Your task to perform on an android device: Open location settings Image 0: 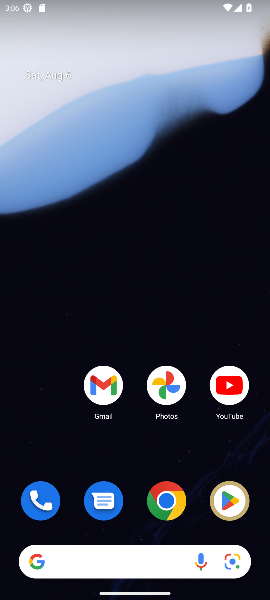
Step 0: drag from (20, 505) to (63, 444)
Your task to perform on an android device: Open location settings Image 1: 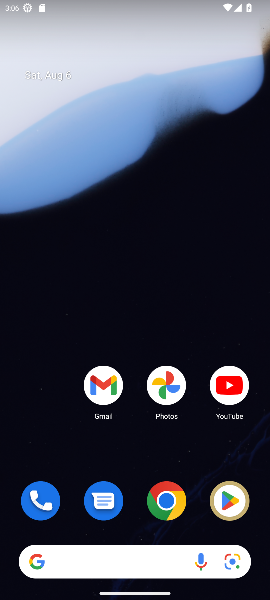
Step 1: drag from (21, 532) to (209, 92)
Your task to perform on an android device: Open location settings Image 2: 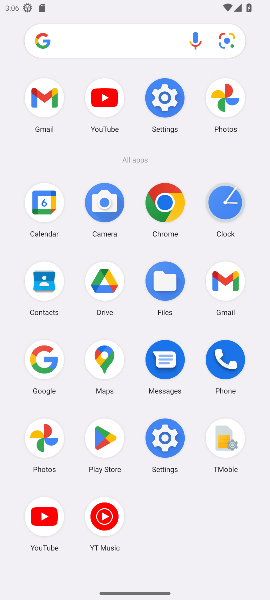
Step 2: click (153, 94)
Your task to perform on an android device: Open location settings Image 3: 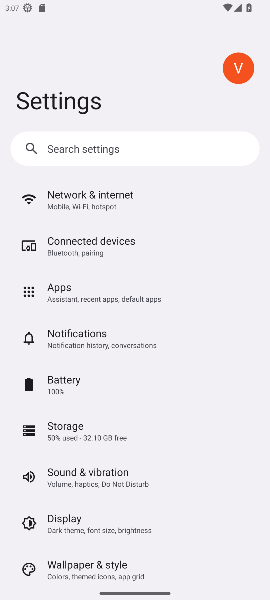
Step 3: drag from (153, 492) to (159, 45)
Your task to perform on an android device: Open location settings Image 4: 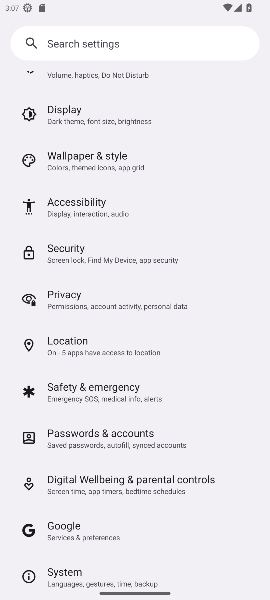
Step 4: click (100, 352)
Your task to perform on an android device: Open location settings Image 5: 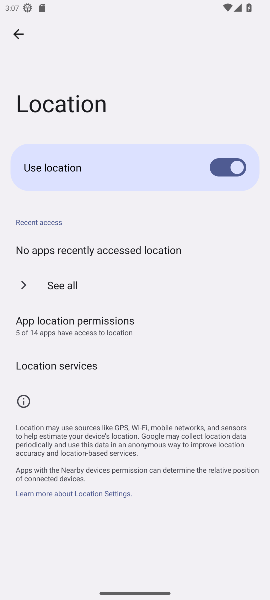
Step 5: task complete